Your task to perform on an android device: change the clock style Image 0: 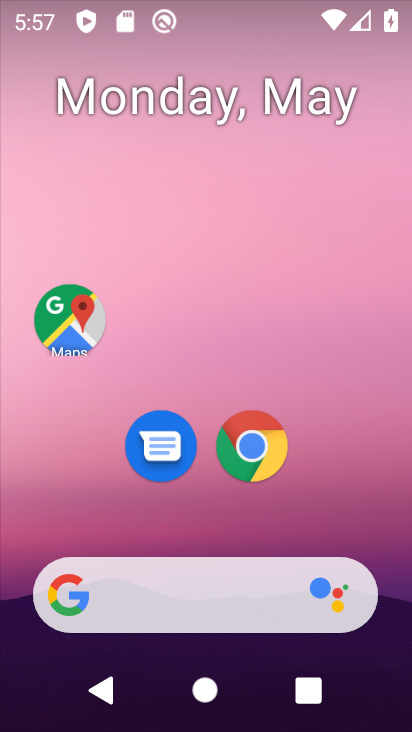
Step 0: drag from (336, 490) to (259, 129)
Your task to perform on an android device: change the clock style Image 1: 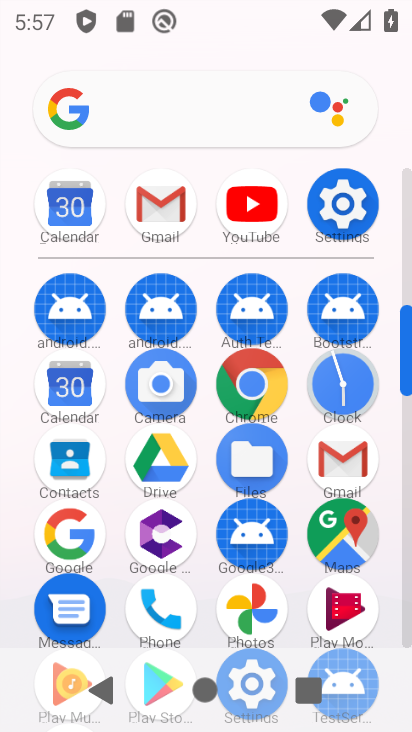
Step 1: click (340, 390)
Your task to perform on an android device: change the clock style Image 2: 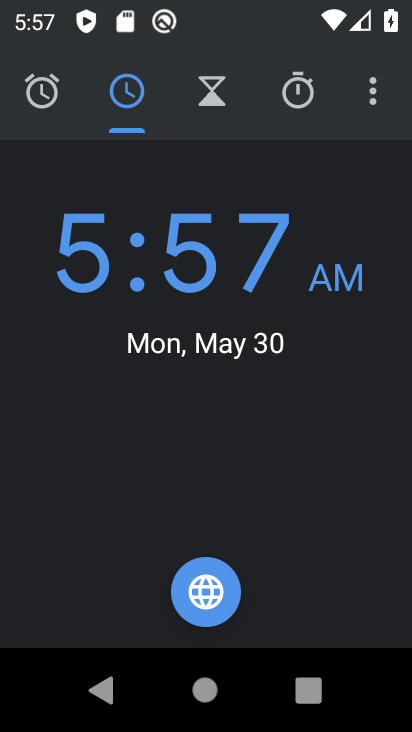
Step 2: click (371, 87)
Your task to perform on an android device: change the clock style Image 3: 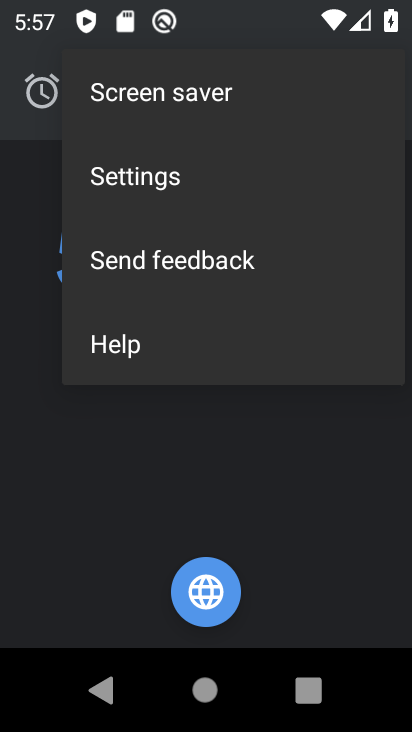
Step 3: click (170, 174)
Your task to perform on an android device: change the clock style Image 4: 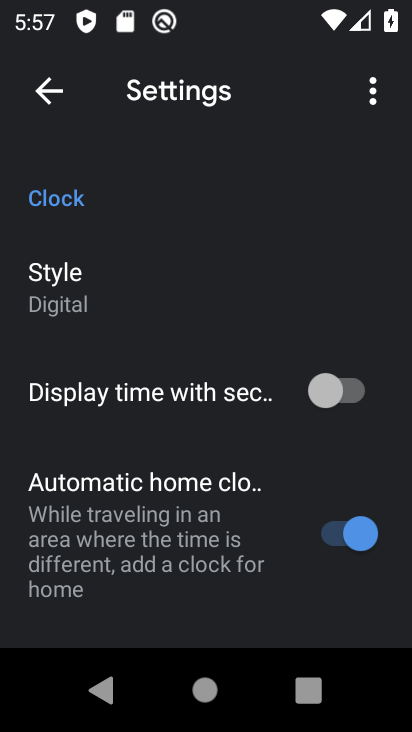
Step 4: click (55, 279)
Your task to perform on an android device: change the clock style Image 5: 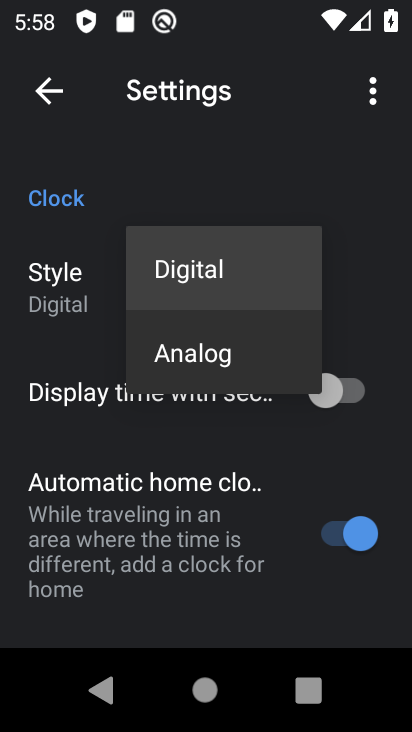
Step 5: click (228, 284)
Your task to perform on an android device: change the clock style Image 6: 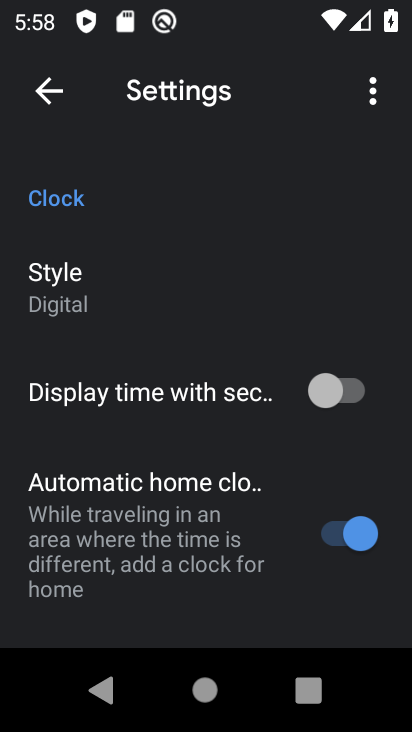
Step 6: task complete